Your task to perform on an android device: Search for Italian restaurants on Maps Image 0: 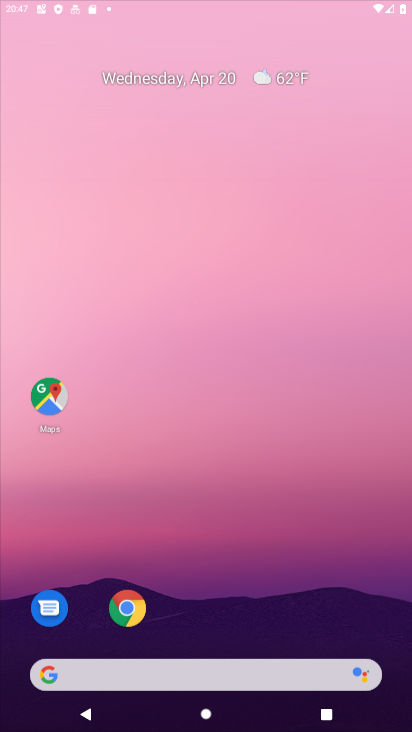
Step 0: drag from (283, 582) to (229, 184)
Your task to perform on an android device: Search for Italian restaurants on Maps Image 1: 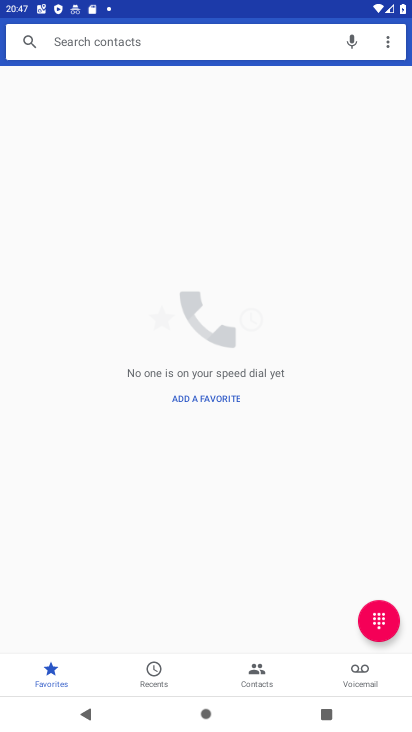
Step 1: press home button
Your task to perform on an android device: Search for Italian restaurants on Maps Image 2: 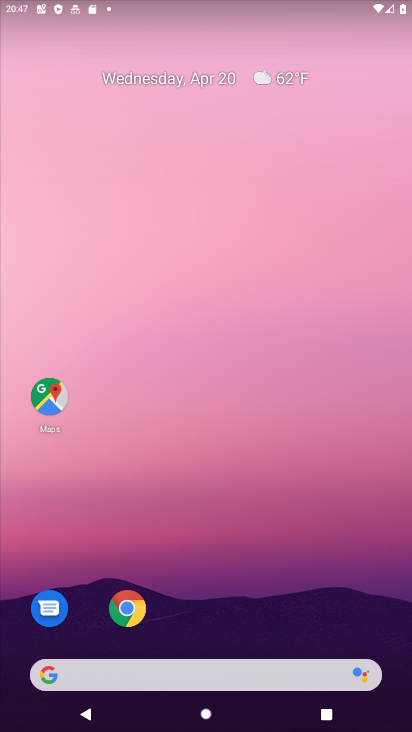
Step 2: drag from (274, 574) to (196, 145)
Your task to perform on an android device: Search for Italian restaurants on Maps Image 3: 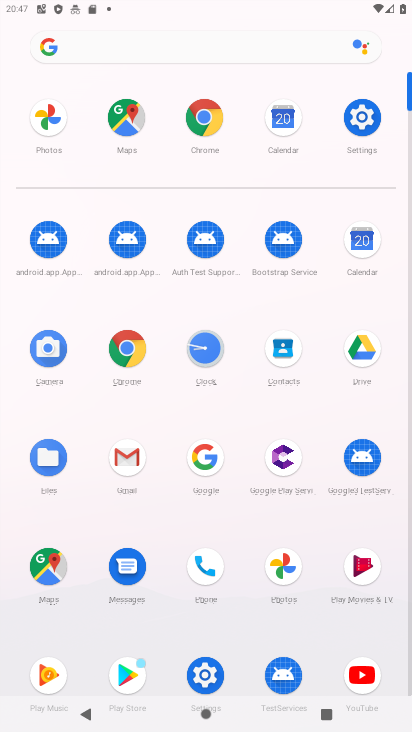
Step 3: click (140, 116)
Your task to perform on an android device: Search for Italian restaurants on Maps Image 4: 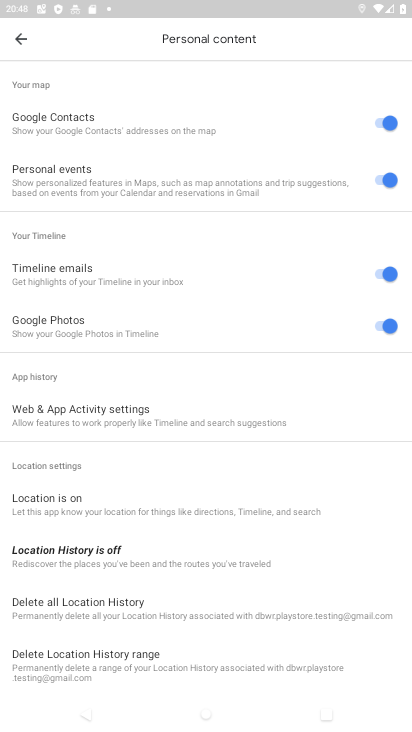
Step 4: click (30, 21)
Your task to perform on an android device: Search for Italian restaurants on Maps Image 5: 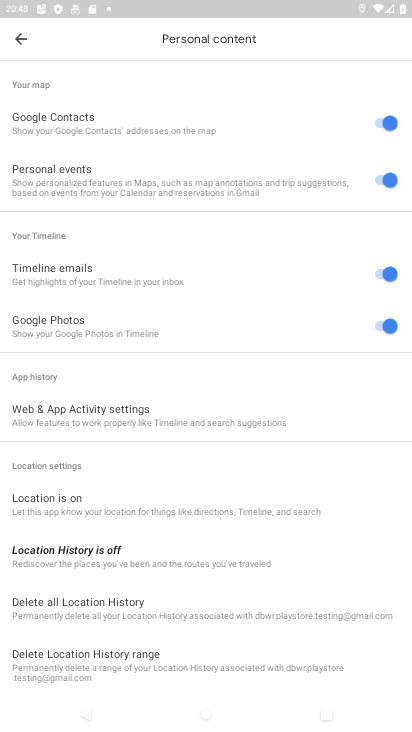
Step 5: click (25, 45)
Your task to perform on an android device: Search for Italian restaurants on Maps Image 6: 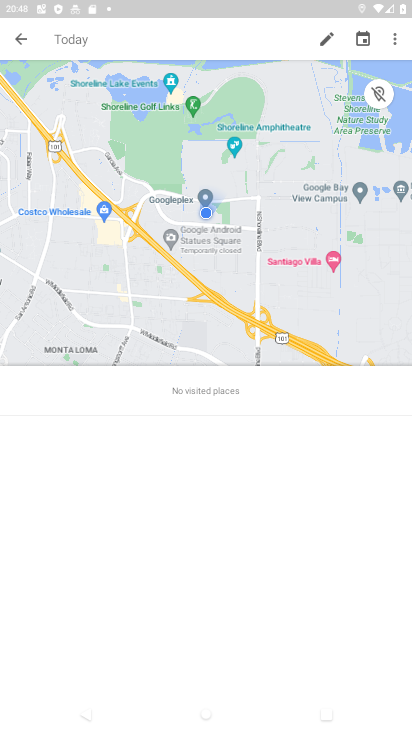
Step 6: click (25, 45)
Your task to perform on an android device: Search for Italian restaurants on Maps Image 7: 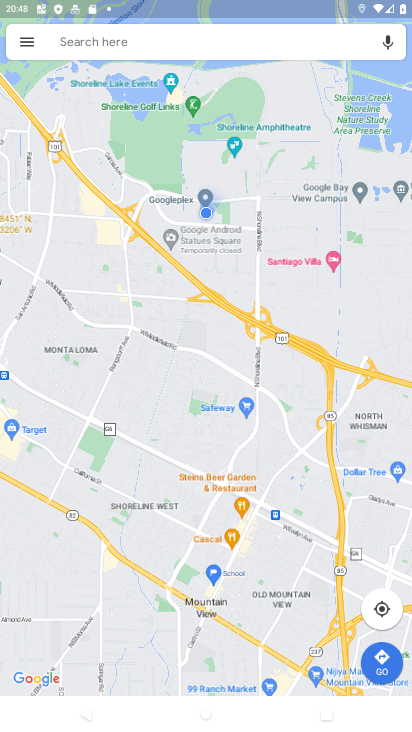
Step 7: click (143, 45)
Your task to perform on an android device: Search for Italian restaurants on Maps Image 8: 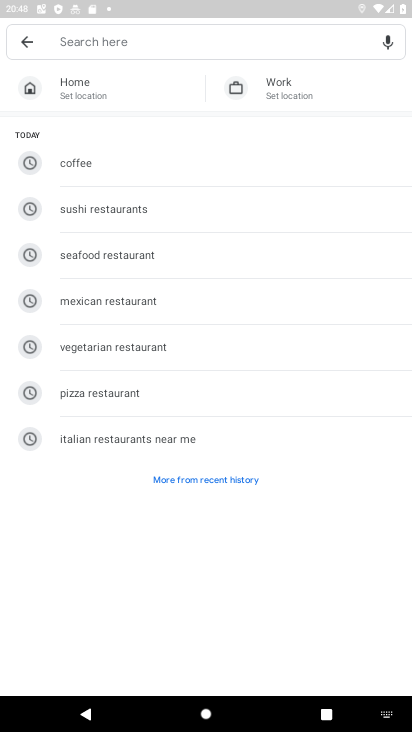
Step 8: click (143, 45)
Your task to perform on an android device: Search for Italian restaurants on Maps Image 9: 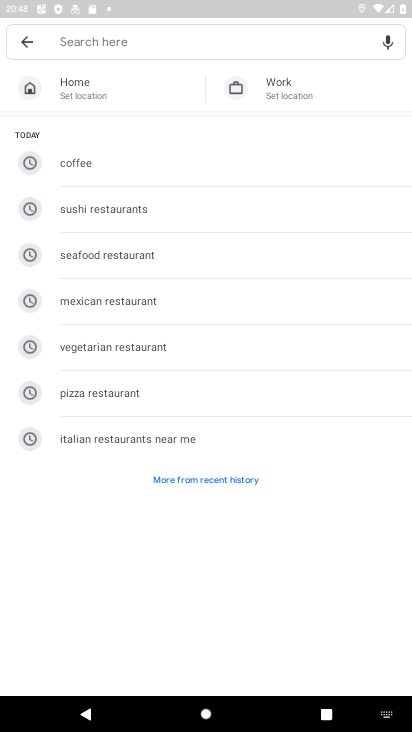
Step 9: click (163, 30)
Your task to perform on an android device: Search for Italian restaurants on Maps Image 10: 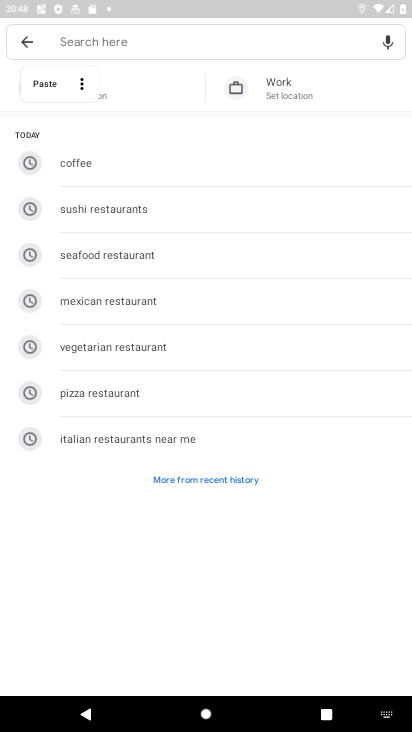
Step 10: click (61, 42)
Your task to perform on an android device: Search for Italian restaurants on Maps Image 11: 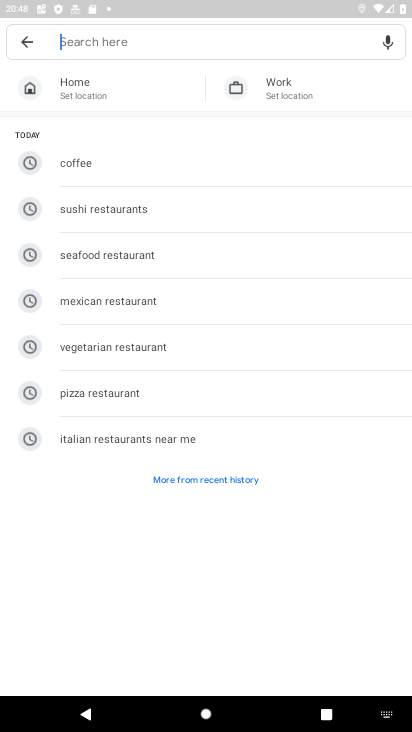
Step 11: type "Italian restaurants"
Your task to perform on an android device: Search for Italian restaurants on Maps Image 12: 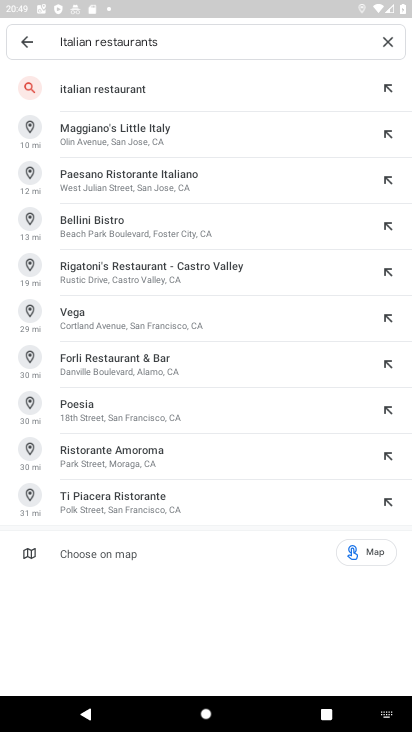
Step 12: click (114, 93)
Your task to perform on an android device: Search for Italian restaurants on Maps Image 13: 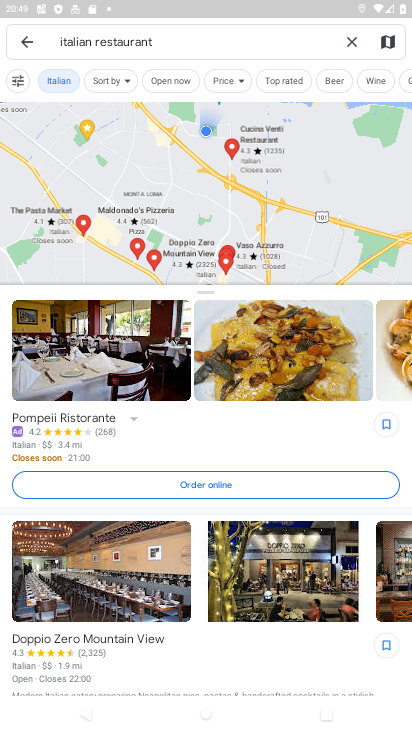
Step 13: task complete